Your task to perform on an android device: open chrome and create a bookmark for the current page Image 0: 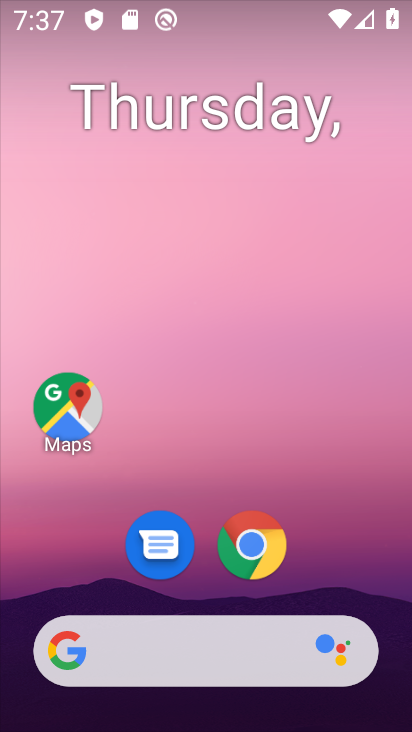
Step 0: drag from (341, 557) to (300, 266)
Your task to perform on an android device: open chrome and create a bookmark for the current page Image 1: 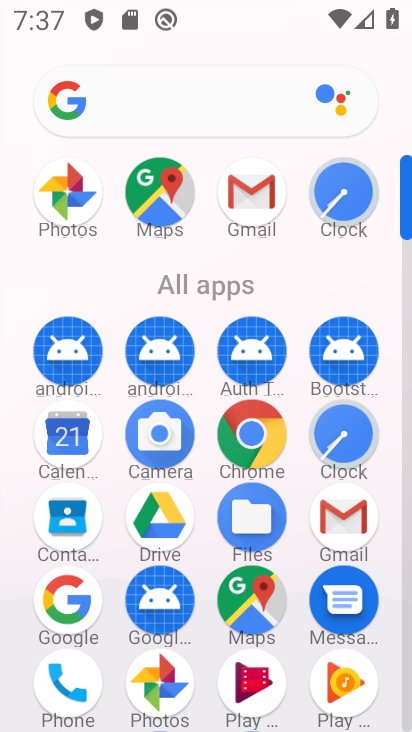
Step 1: click (250, 426)
Your task to perform on an android device: open chrome and create a bookmark for the current page Image 2: 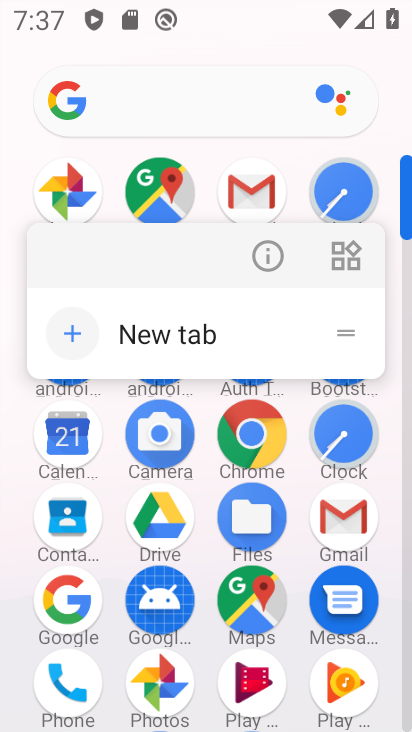
Step 2: click (250, 426)
Your task to perform on an android device: open chrome and create a bookmark for the current page Image 3: 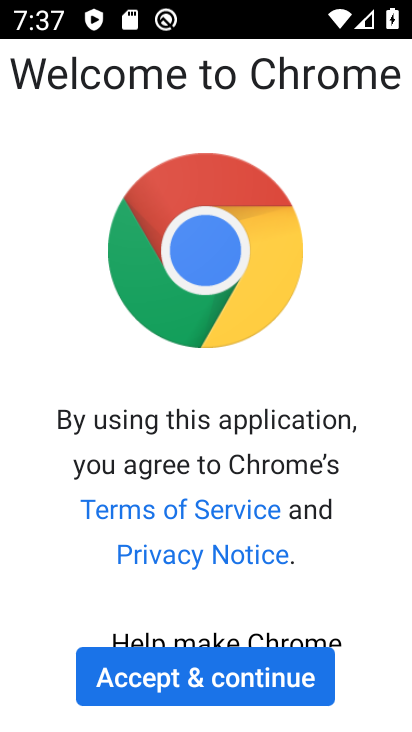
Step 3: click (265, 669)
Your task to perform on an android device: open chrome and create a bookmark for the current page Image 4: 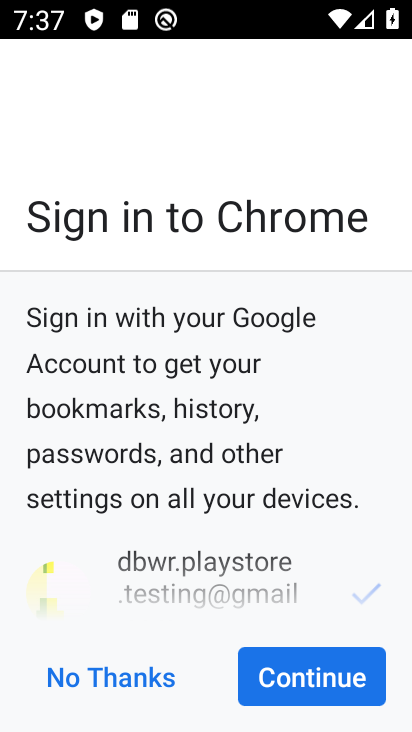
Step 4: click (279, 676)
Your task to perform on an android device: open chrome and create a bookmark for the current page Image 5: 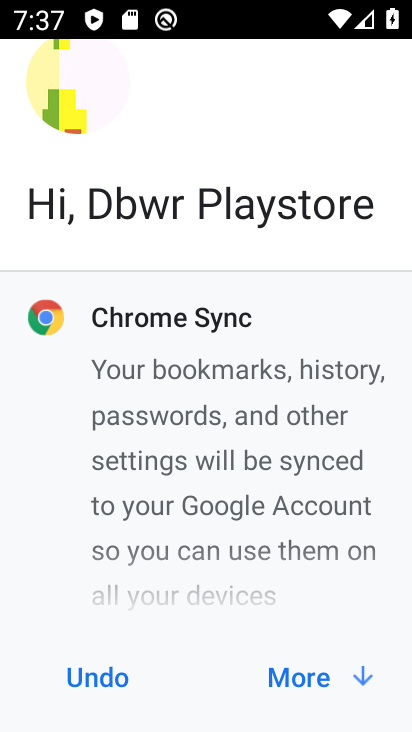
Step 5: click (279, 676)
Your task to perform on an android device: open chrome and create a bookmark for the current page Image 6: 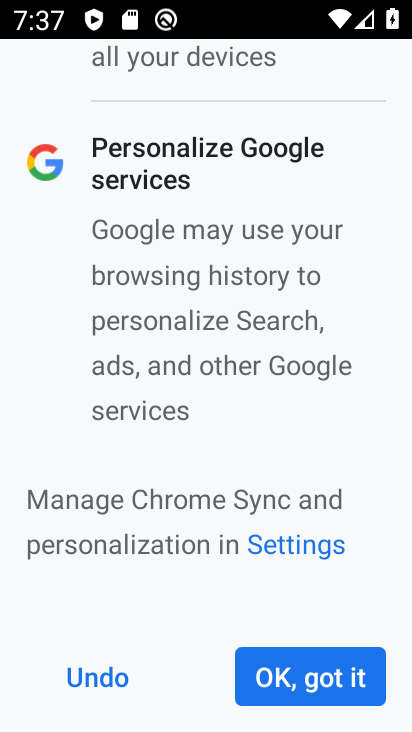
Step 6: click (279, 676)
Your task to perform on an android device: open chrome and create a bookmark for the current page Image 7: 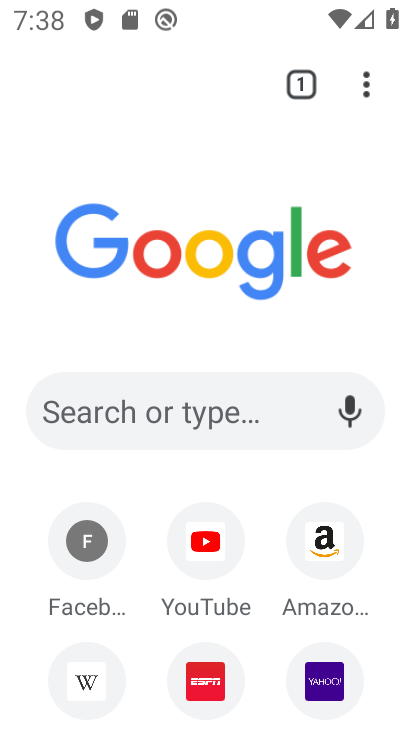
Step 7: click (359, 88)
Your task to perform on an android device: open chrome and create a bookmark for the current page Image 8: 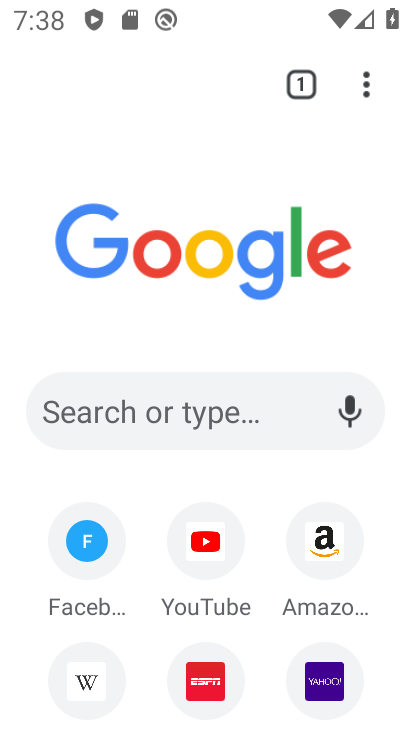
Step 8: click (356, 91)
Your task to perform on an android device: open chrome and create a bookmark for the current page Image 9: 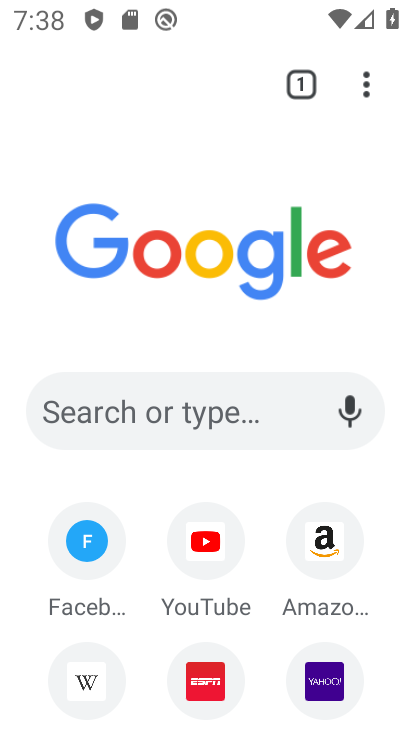
Step 9: click (356, 83)
Your task to perform on an android device: open chrome and create a bookmark for the current page Image 10: 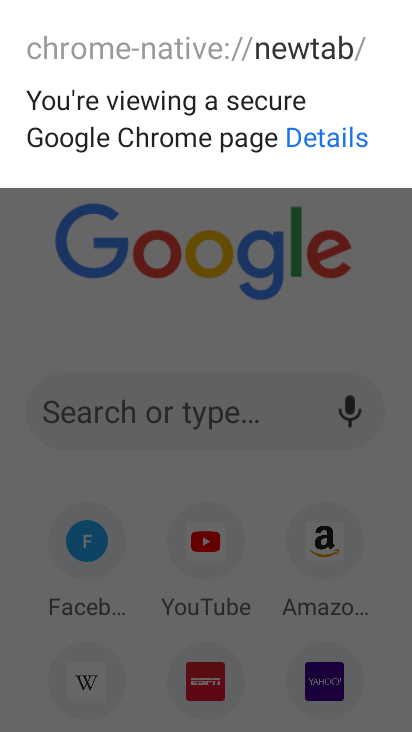
Step 10: press back button
Your task to perform on an android device: open chrome and create a bookmark for the current page Image 11: 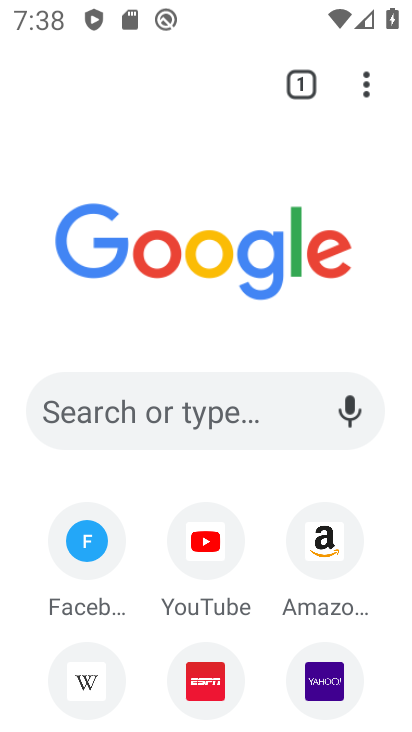
Step 11: click (374, 80)
Your task to perform on an android device: open chrome and create a bookmark for the current page Image 12: 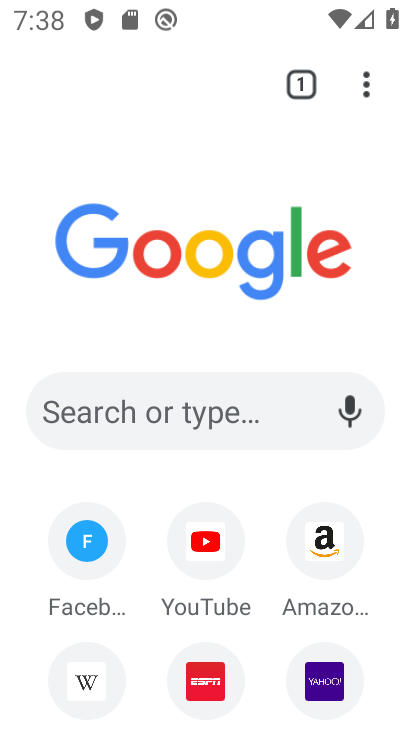
Step 12: click (347, 83)
Your task to perform on an android device: open chrome and create a bookmark for the current page Image 13: 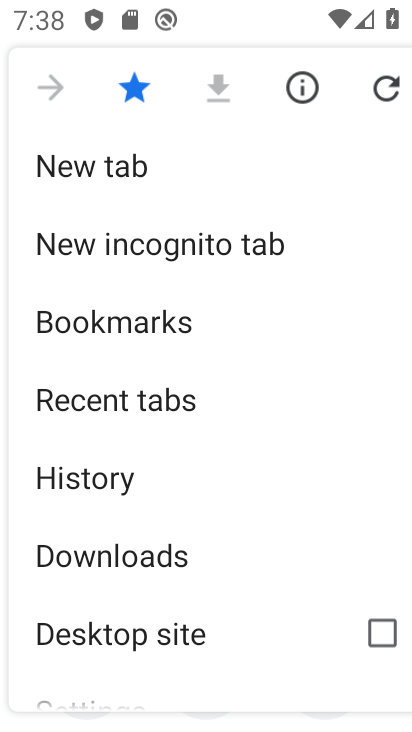
Step 13: click (161, 330)
Your task to perform on an android device: open chrome and create a bookmark for the current page Image 14: 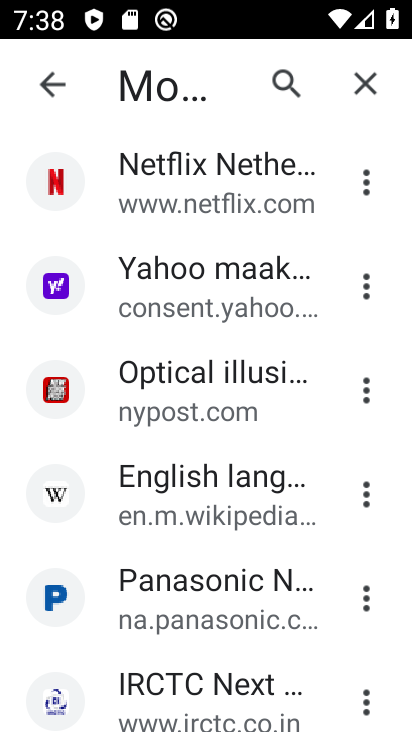
Step 14: click (62, 62)
Your task to perform on an android device: open chrome and create a bookmark for the current page Image 15: 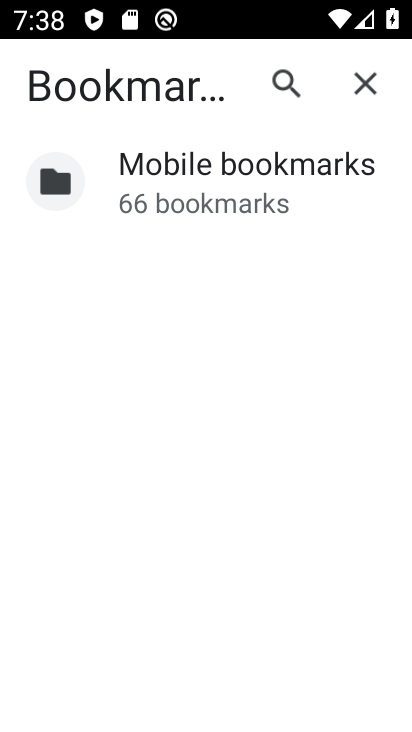
Step 15: click (356, 83)
Your task to perform on an android device: open chrome and create a bookmark for the current page Image 16: 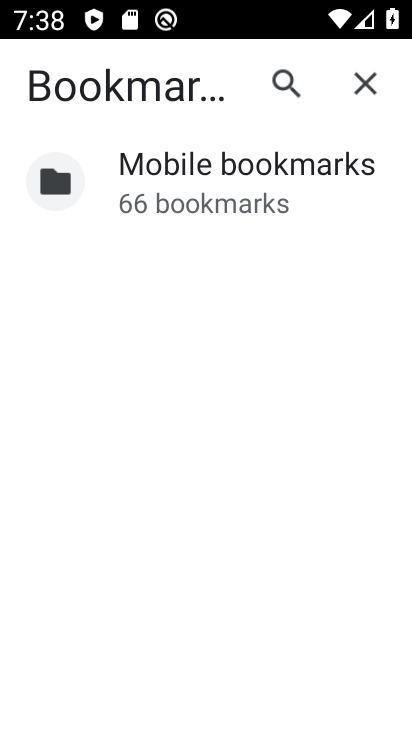
Step 16: press back button
Your task to perform on an android device: open chrome and create a bookmark for the current page Image 17: 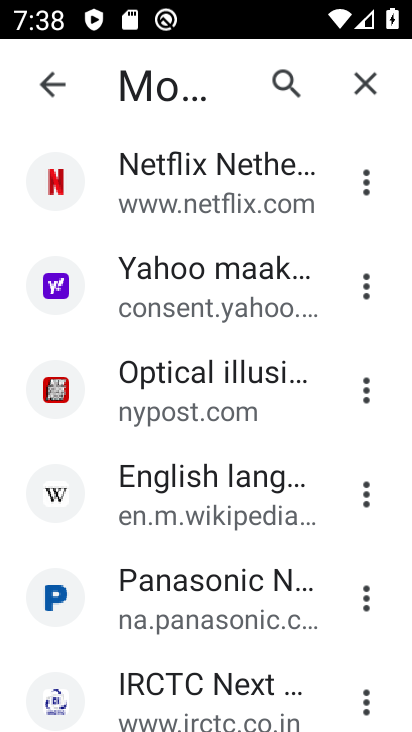
Step 17: press back button
Your task to perform on an android device: open chrome and create a bookmark for the current page Image 18: 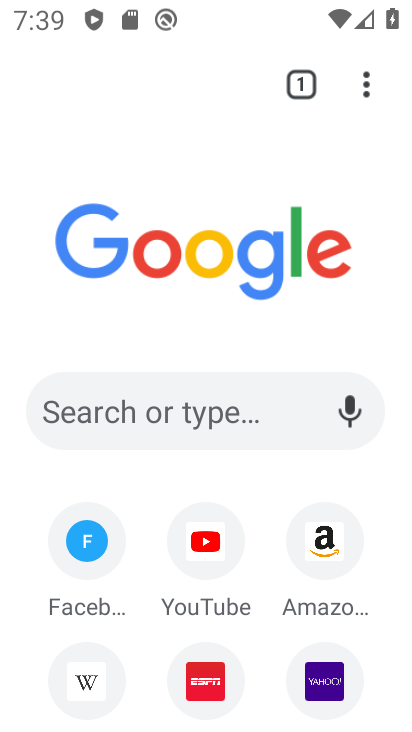
Step 18: click (348, 71)
Your task to perform on an android device: open chrome and create a bookmark for the current page Image 19: 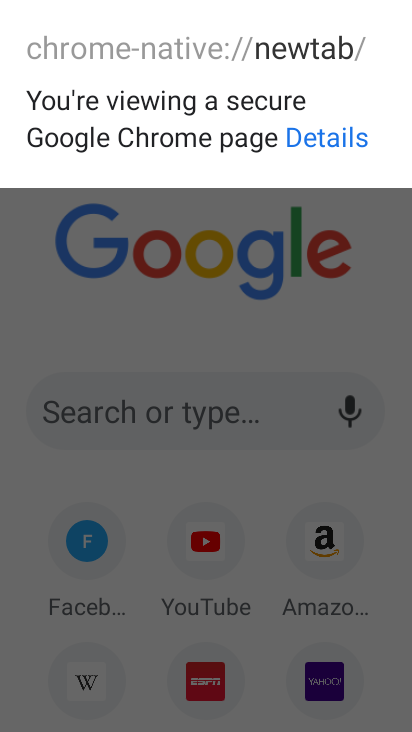
Step 19: press back button
Your task to perform on an android device: open chrome and create a bookmark for the current page Image 20: 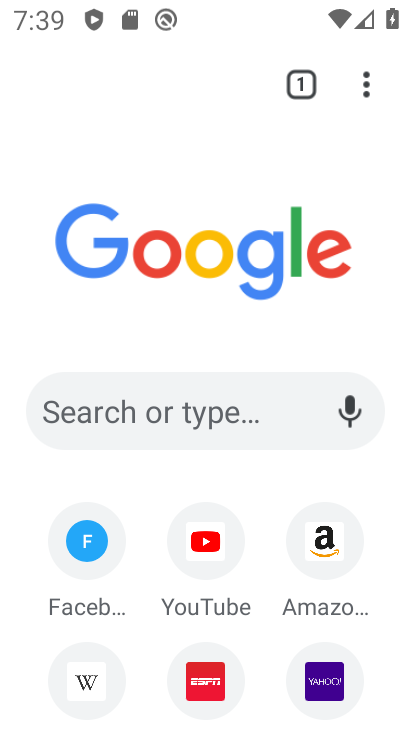
Step 20: click (353, 78)
Your task to perform on an android device: open chrome and create a bookmark for the current page Image 21: 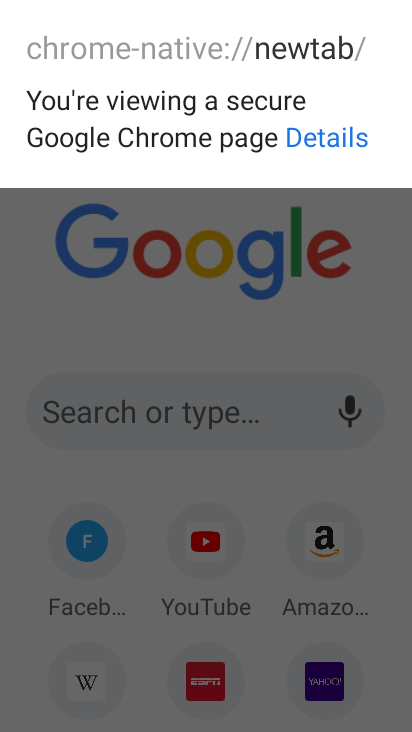
Step 21: press back button
Your task to perform on an android device: open chrome and create a bookmark for the current page Image 22: 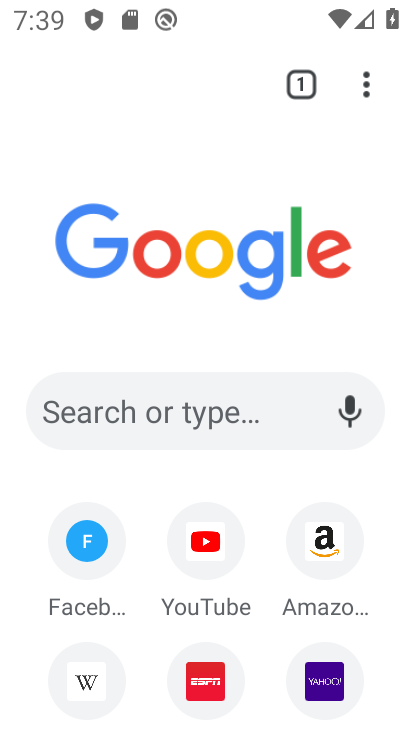
Step 22: click (340, 73)
Your task to perform on an android device: open chrome and create a bookmark for the current page Image 23: 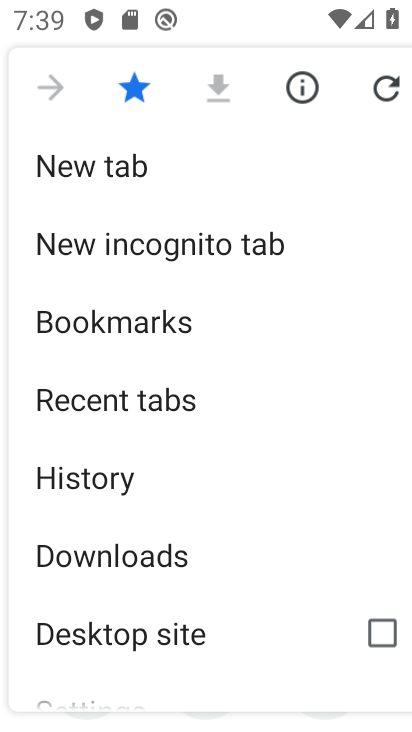
Step 23: click (160, 82)
Your task to perform on an android device: open chrome and create a bookmark for the current page Image 24: 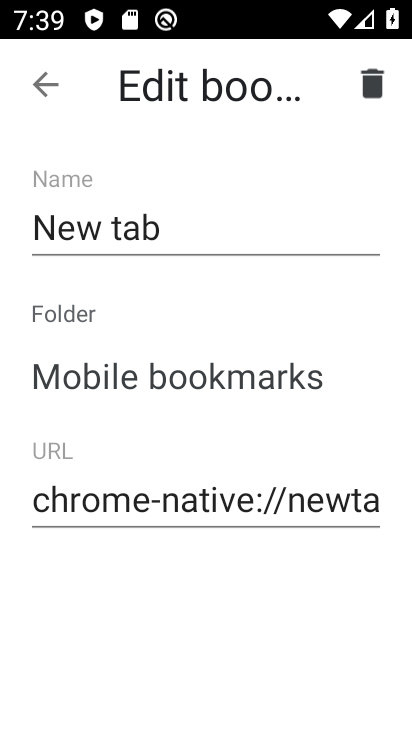
Step 24: task complete